Your task to perform on an android device: Open Android settings Image 0: 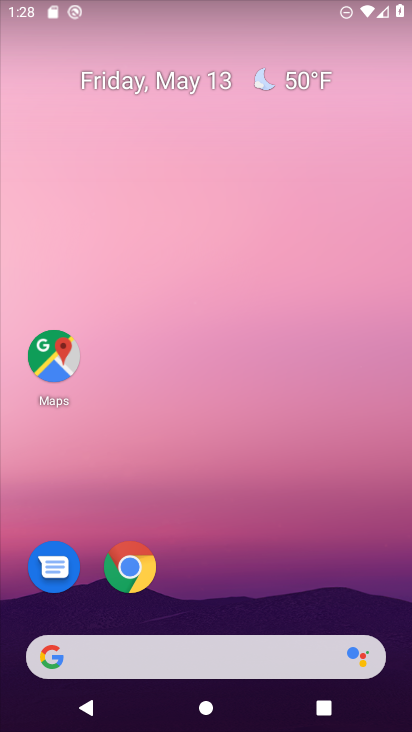
Step 0: drag from (241, 514) to (305, 293)
Your task to perform on an android device: Open Android settings Image 1: 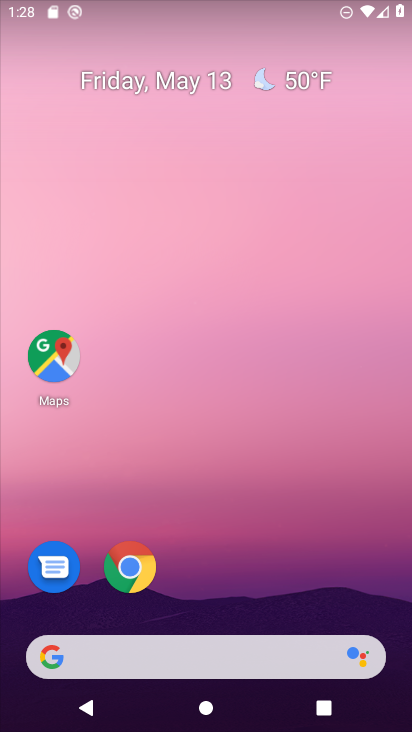
Step 1: drag from (266, 599) to (330, 243)
Your task to perform on an android device: Open Android settings Image 2: 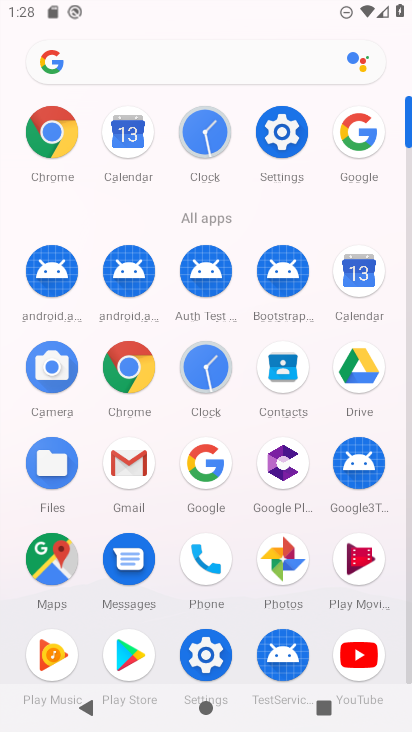
Step 2: click (289, 121)
Your task to perform on an android device: Open Android settings Image 3: 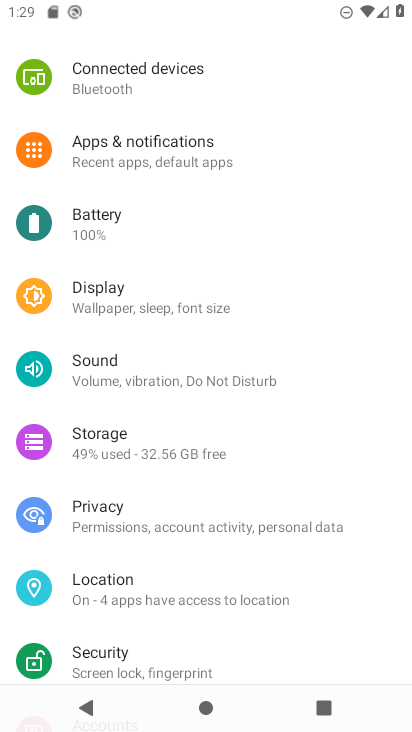
Step 3: task complete